Your task to perform on an android device: toggle sleep mode Image 0: 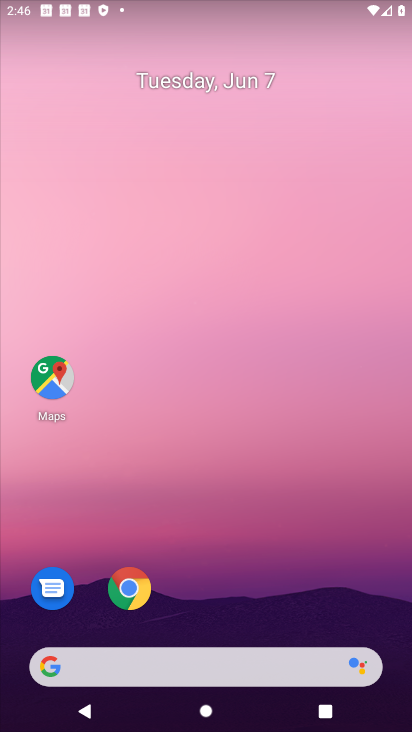
Step 0: drag from (313, 605) to (351, 167)
Your task to perform on an android device: toggle sleep mode Image 1: 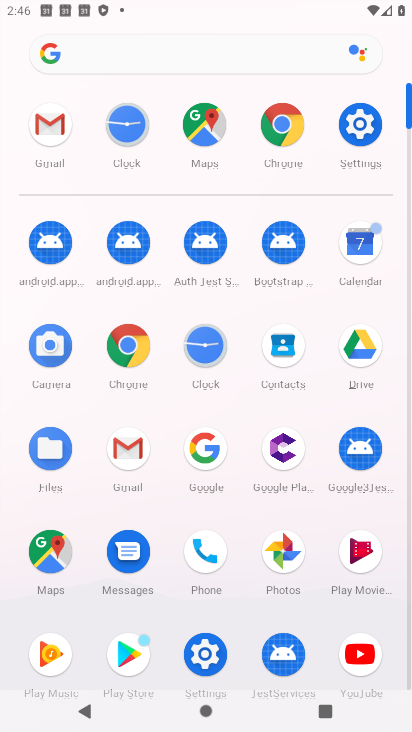
Step 1: click (369, 151)
Your task to perform on an android device: toggle sleep mode Image 2: 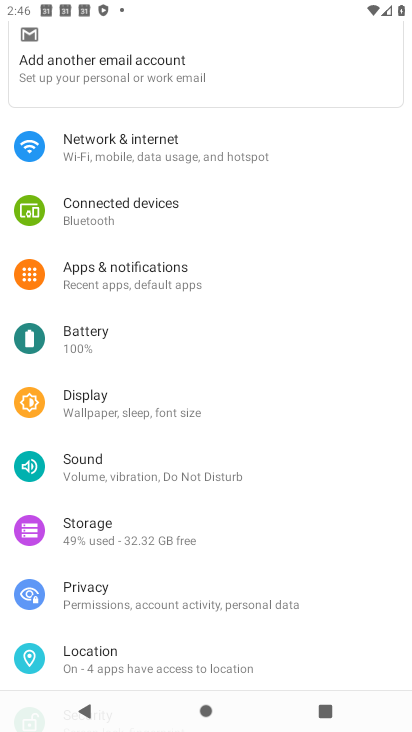
Step 2: click (200, 400)
Your task to perform on an android device: toggle sleep mode Image 3: 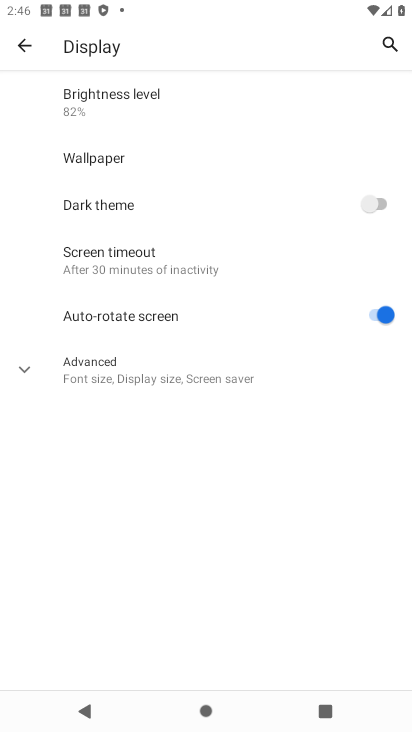
Step 3: click (187, 360)
Your task to perform on an android device: toggle sleep mode Image 4: 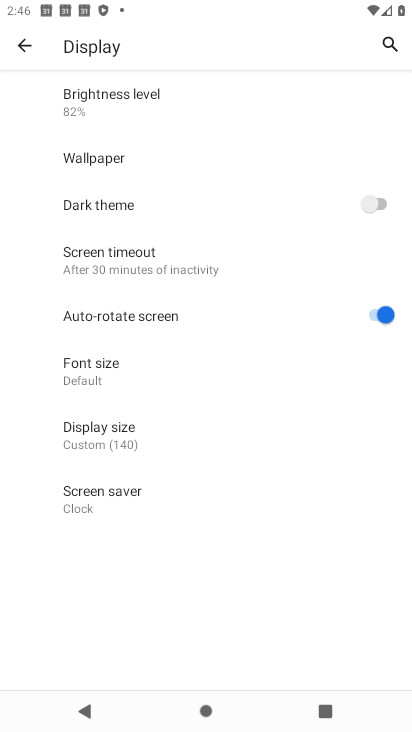
Step 4: task complete